Your task to perform on an android device: Open internet settings Image 0: 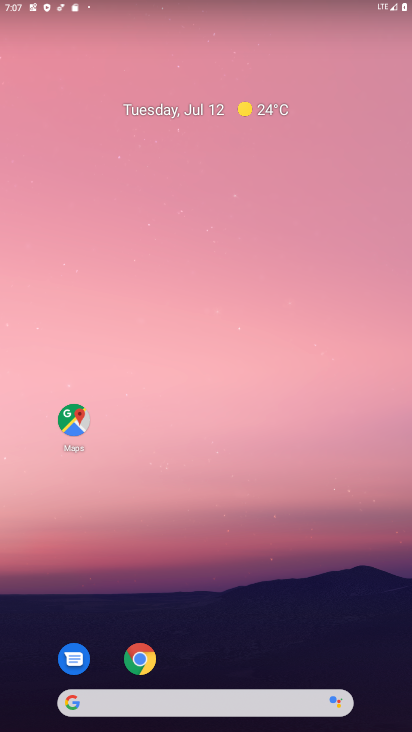
Step 0: drag from (388, 676) to (246, 27)
Your task to perform on an android device: Open internet settings Image 1: 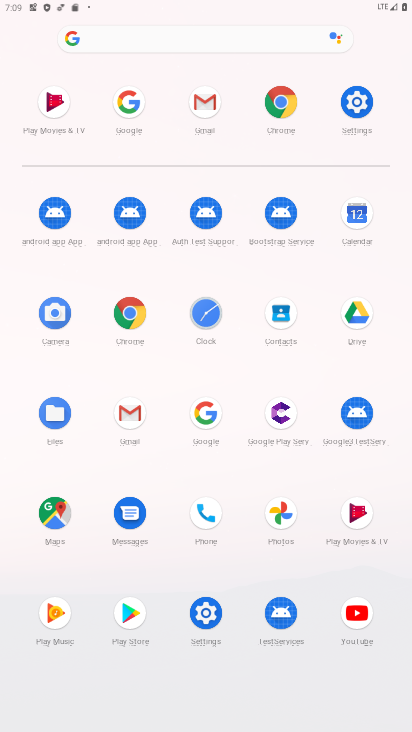
Step 1: click (210, 607)
Your task to perform on an android device: Open internet settings Image 2: 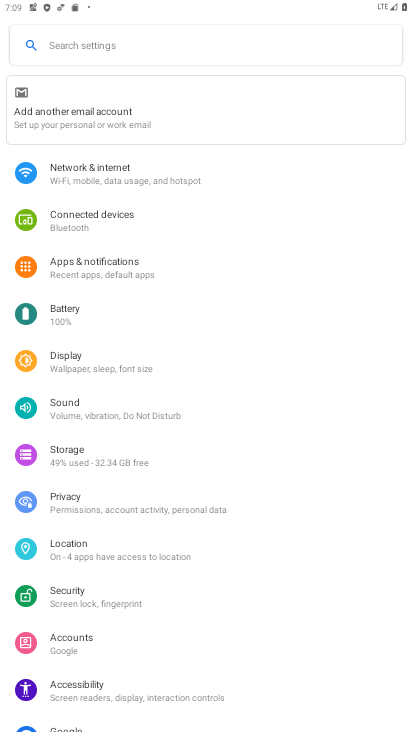
Step 2: click (132, 175)
Your task to perform on an android device: Open internet settings Image 3: 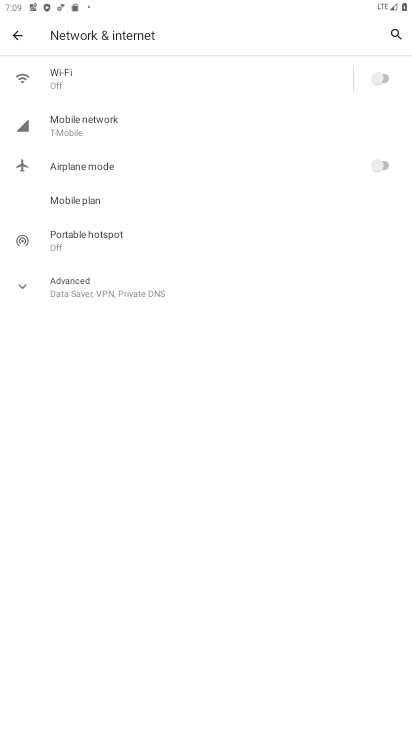
Step 3: task complete